Your task to perform on an android device: turn off improve location accuracy Image 0: 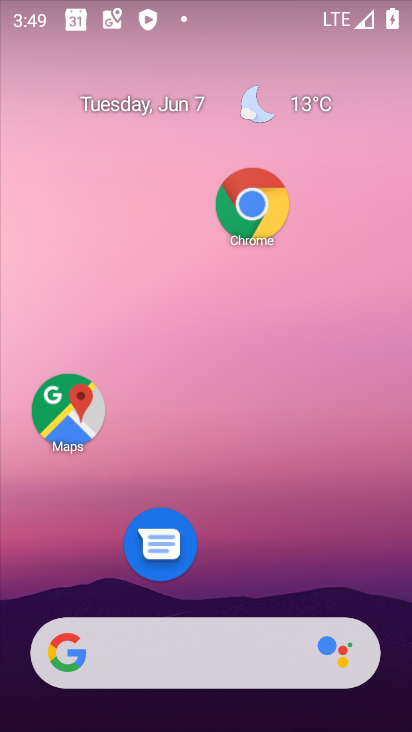
Step 0: drag from (221, 566) to (214, 122)
Your task to perform on an android device: turn off improve location accuracy Image 1: 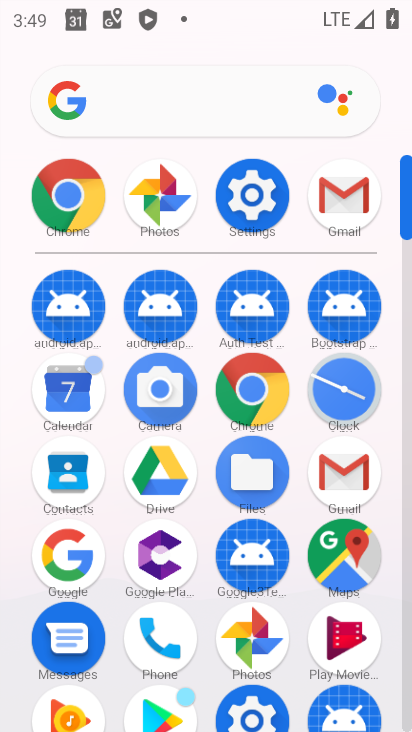
Step 1: click (244, 189)
Your task to perform on an android device: turn off improve location accuracy Image 2: 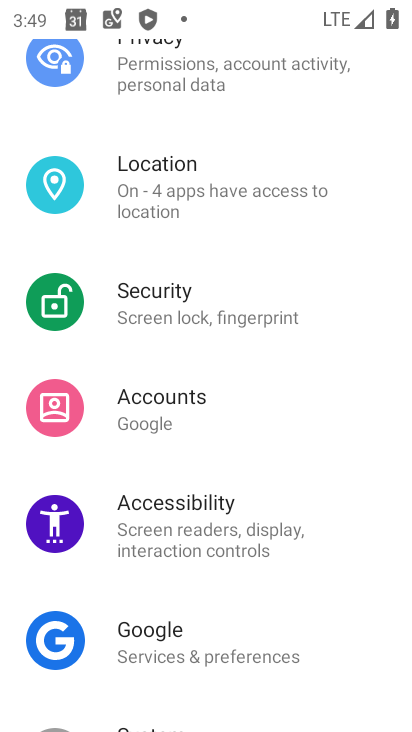
Step 2: drag from (202, 617) to (222, 529)
Your task to perform on an android device: turn off improve location accuracy Image 3: 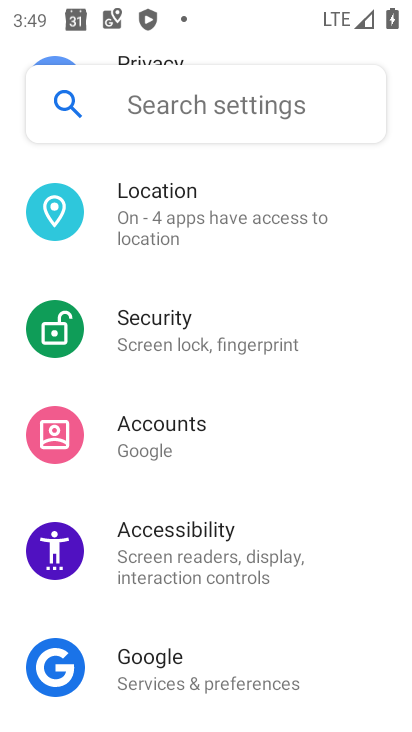
Step 3: click (189, 208)
Your task to perform on an android device: turn off improve location accuracy Image 4: 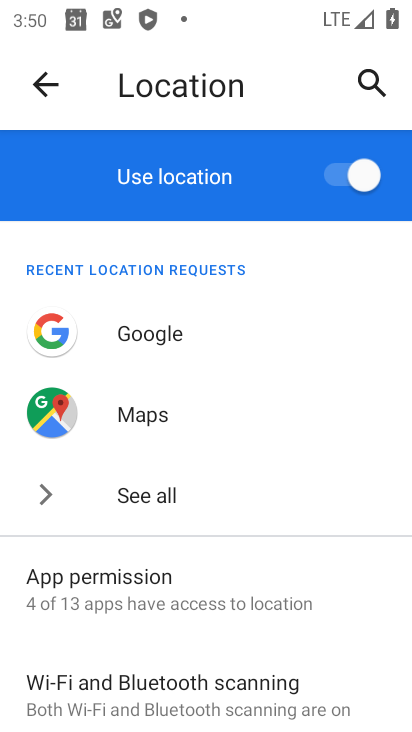
Step 4: drag from (236, 651) to (258, 182)
Your task to perform on an android device: turn off improve location accuracy Image 5: 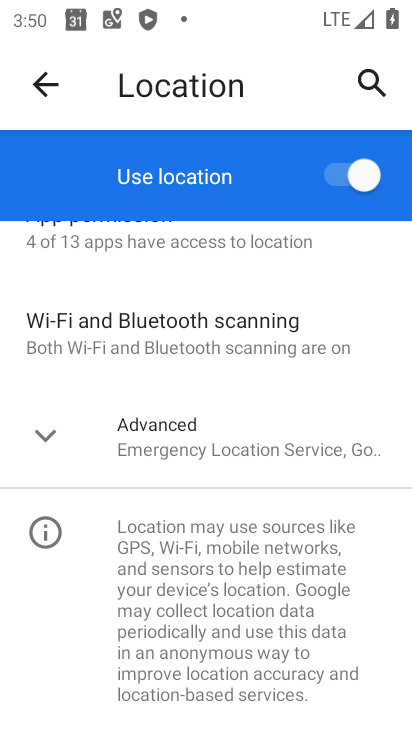
Step 5: click (47, 429)
Your task to perform on an android device: turn off improve location accuracy Image 6: 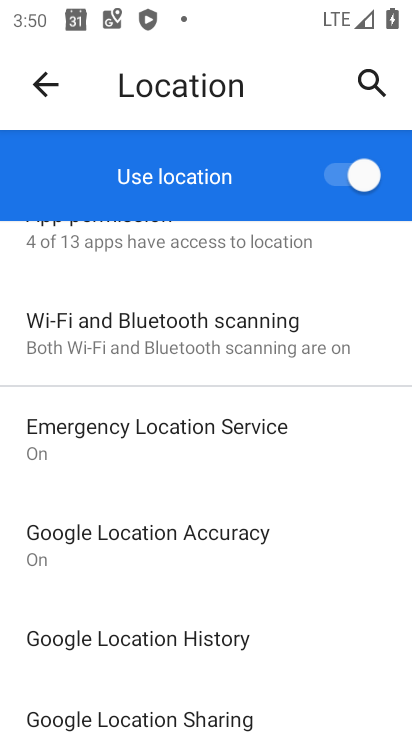
Step 6: click (137, 540)
Your task to perform on an android device: turn off improve location accuracy Image 7: 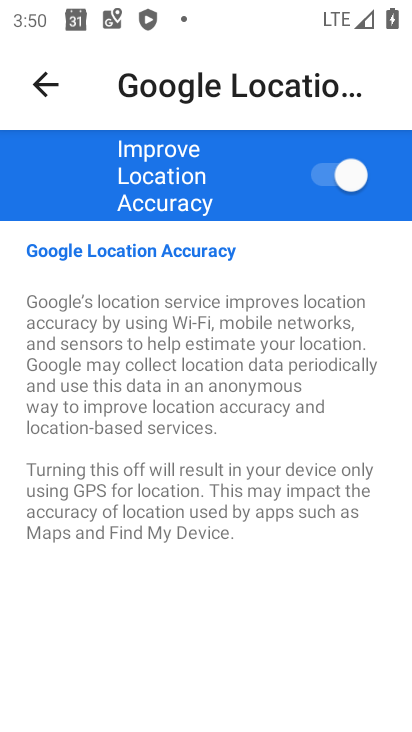
Step 7: click (323, 172)
Your task to perform on an android device: turn off improve location accuracy Image 8: 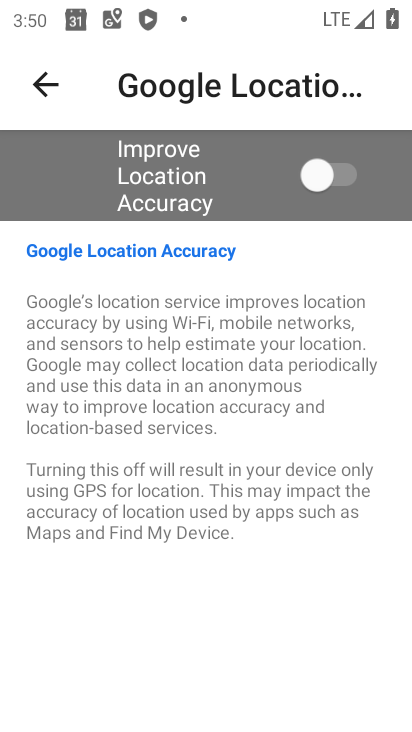
Step 8: task complete